Your task to perform on an android device: delete browsing data in the chrome app Image 0: 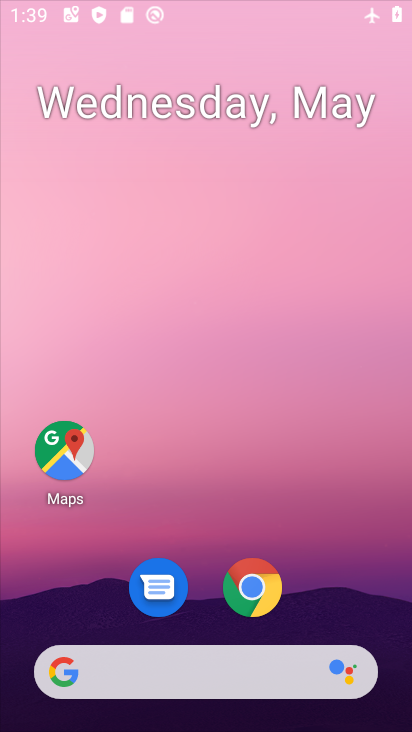
Step 0: drag from (387, 45) to (411, 606)
Your task to perform on an android device: delete browsing data in the chrome app Image 1: 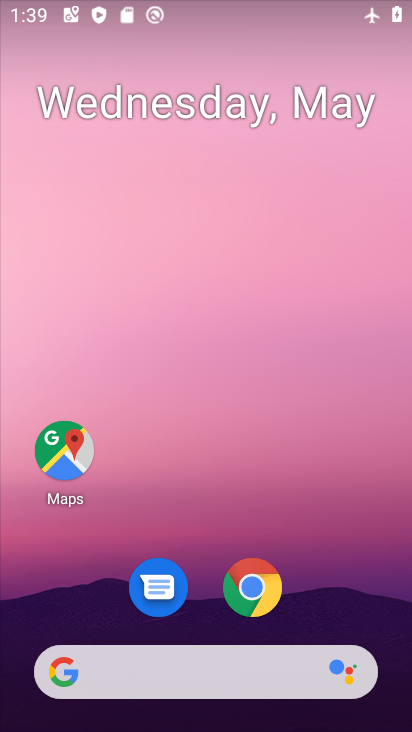
Step 1: drag from (365, 16) to (376, 622)
Your task to perform on an android device: delete browsing data in the chrome app Image 2: 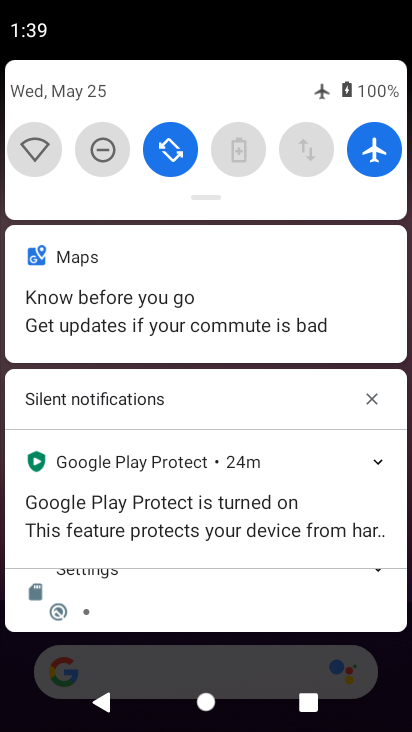
Step 2: click (361, 143)
Your task to perform on an android device: delete browsing data in the chrome app Image 3: 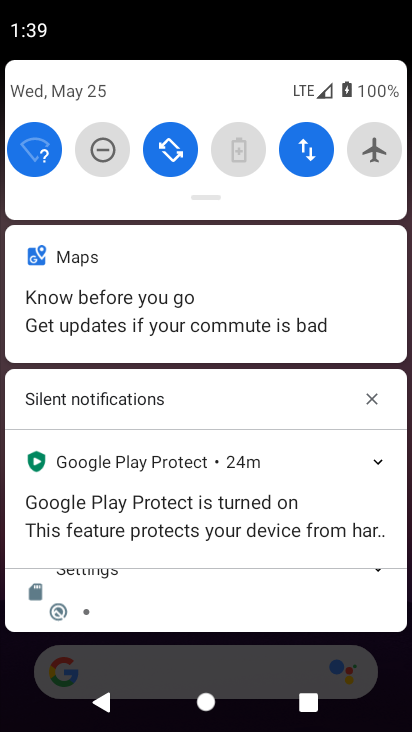
Step 3: drag from (327, 677) to (327, 11)
Your task to perform on an android device: delete browsing data in the chrome app Image 4: 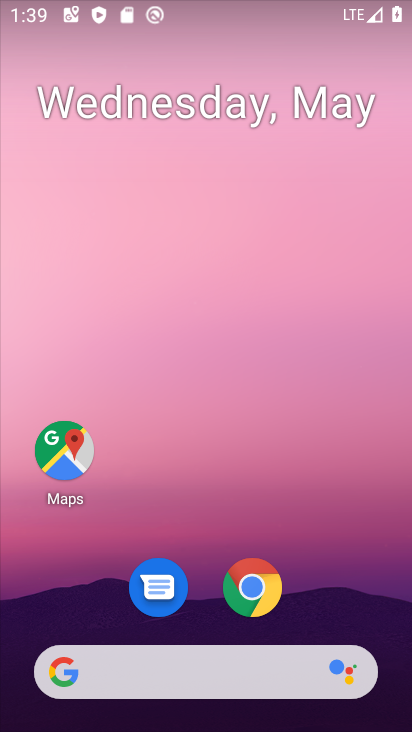
Step 4: drag from (266, 653) to (250, 596)
Your task to perform on an android device: delete browsing data in the chrome app Image 5: 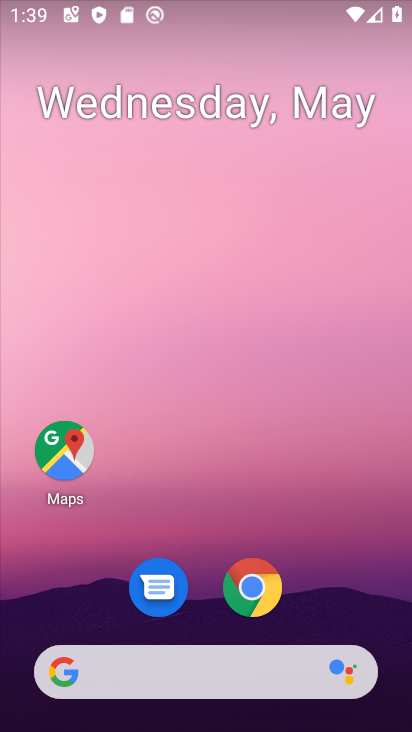
Step 5: click (250, 590)
Your task to perform on an android device: delete browsing data in the chrome app Image 6: 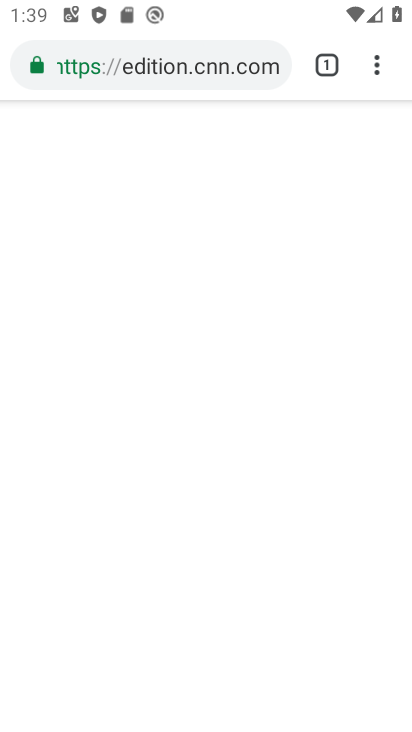
Step 6: click (370, 65)
Your task to perform on an android device: delete browsing data in the chrome app Image 7: 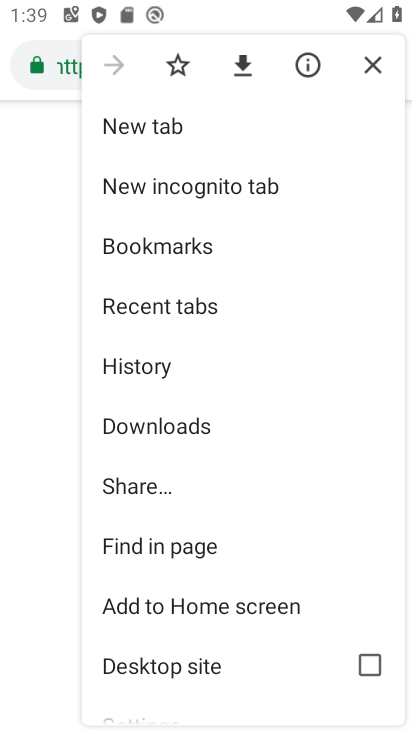
Step 7: click (185, 364)
Your task to perform on an android device: delete browsing data in the chrome app Image 8: 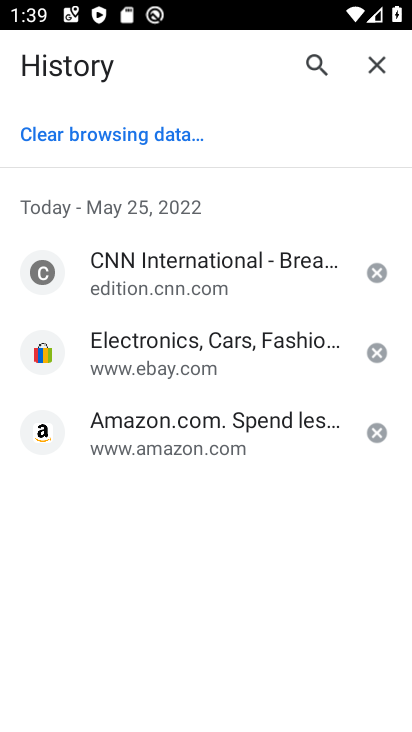
Step 8: click (80, 131)
Your task to perform on an android device: delete browsing data in the chrome app Image 9: 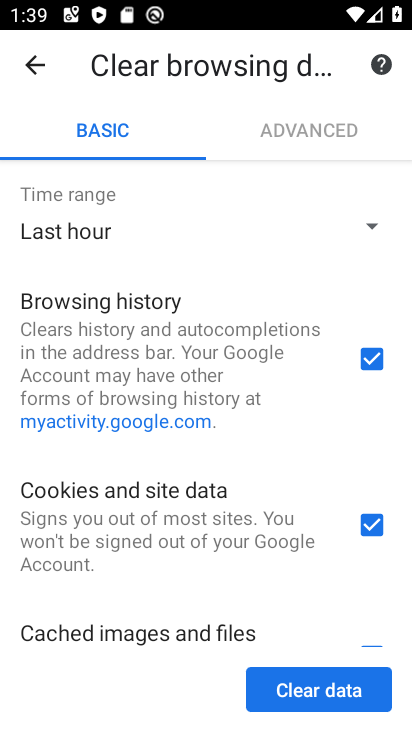
Step 9: drag from (265, 492) to (271, 330)
Your task to perform on an android device: delete browsing data in the chrome app Image 10: 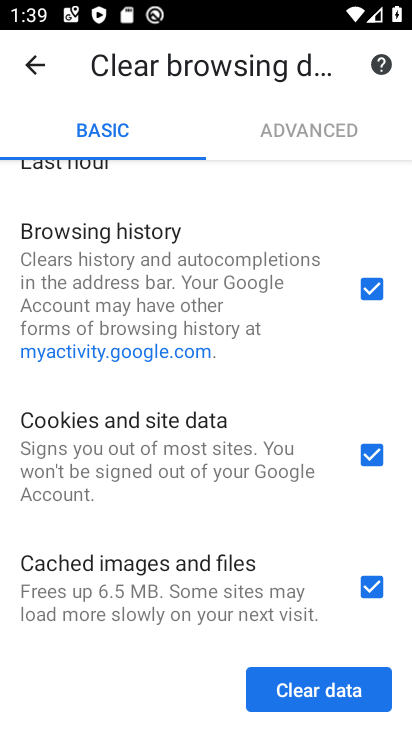
Step 10: click (296, 686)
Your task to perform on an android device: delete browsing data in the chrome app Image 11: 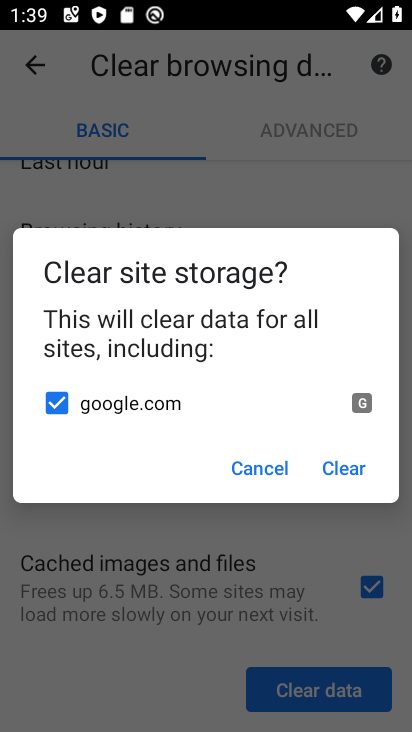
Step 11: click (356, 481)
Your task to perform on an android device: delete browsing data in the chrome app Image 12: 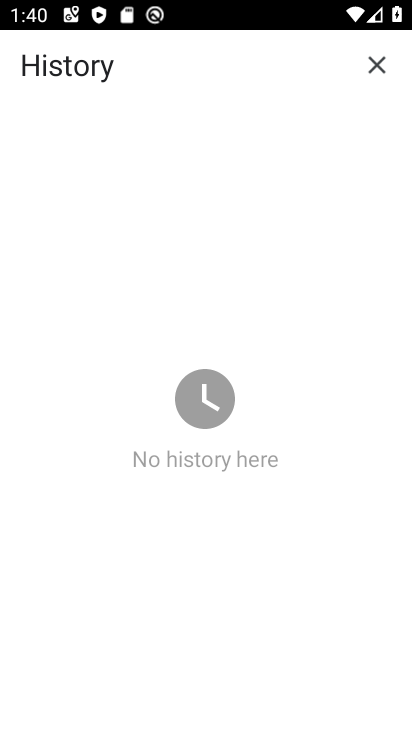
Step 12: task complete